Your task to perform on an android device: move a message to another label in the gmail app Image 0: 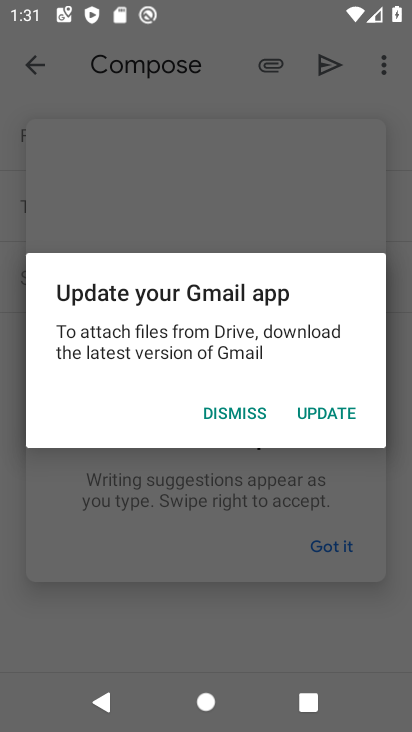
Step 0: press home button
Your task to perform on an android device: move a message to another label in the gmail app Image 1: 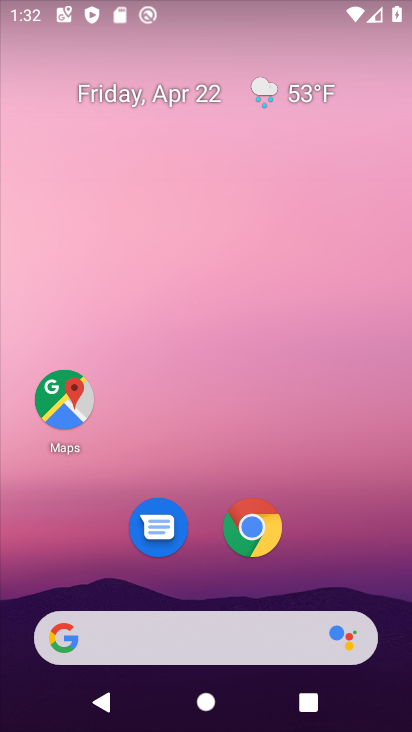
Step 1: drag from (368, 563) to (358, 362)
Your task to perform on an android device: move a message to another label in the gmail app Image 2: 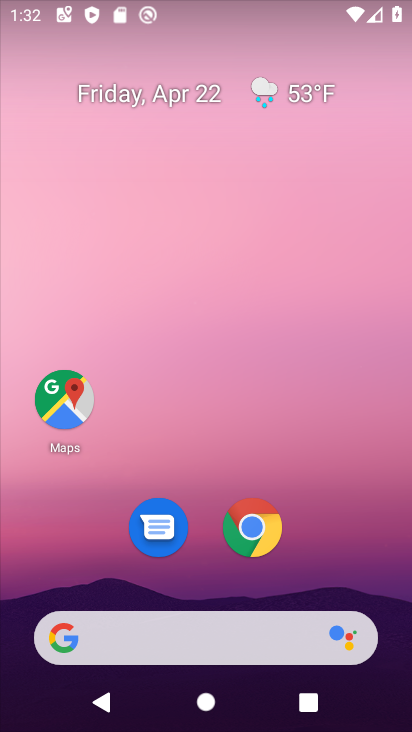
Step 2: drag from (359, 660) to (382, 154)
Your task to perform on an android device: move a message to another label in the gmail app Image 3: 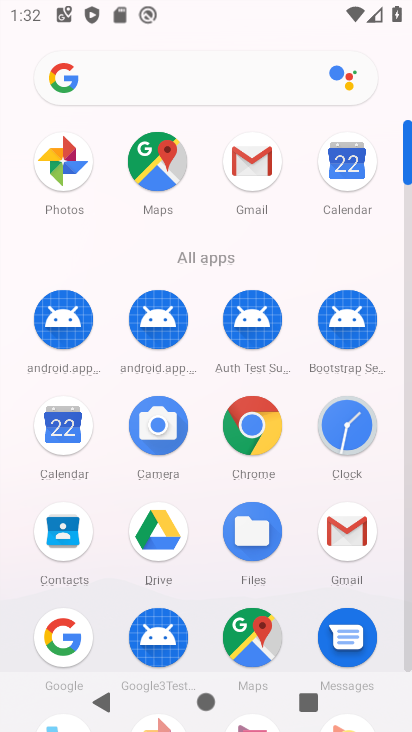
Step 3: drag from (291, 529) to (274, 195)
Your task to perform on an android device: move a message to another label in the gmail app Image 4: 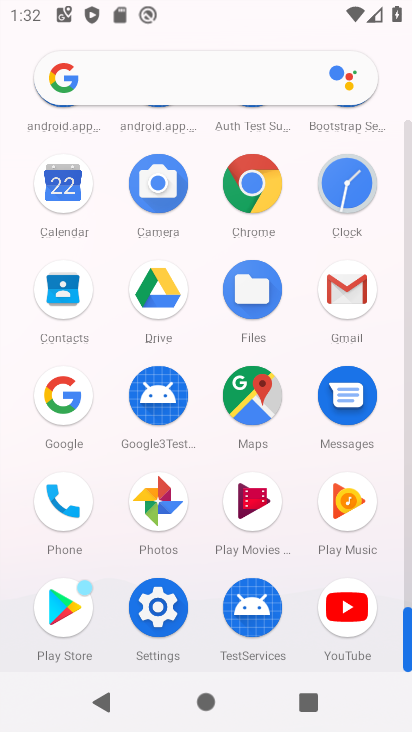
Step 4: click (344, 279)
Your task to perform on an android device: move a message to another label in the gmail app Image 5: 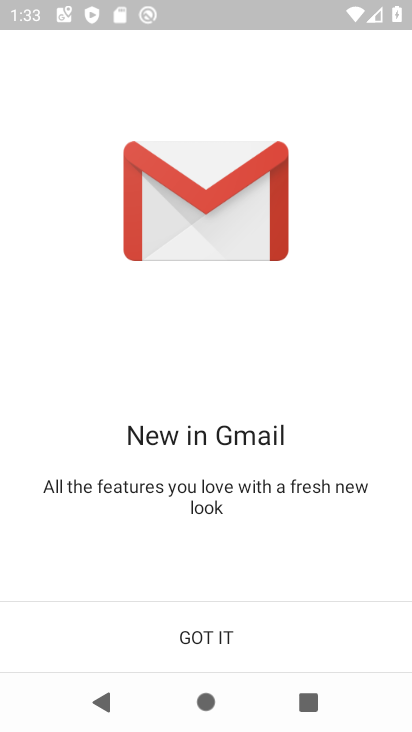
Step 5: click (252, 633)
Your task to perform on an android device: move a message to another label in the gmail app Image 6: 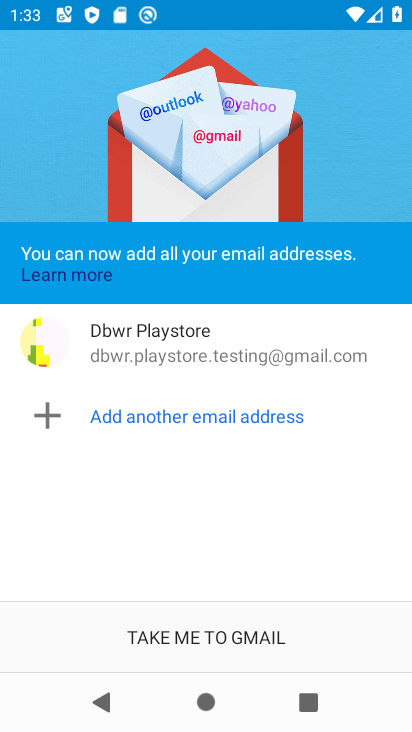
Step 6: click (218, 642)
Your task to perform on an android device: move a message to another label in the gmail app Image 7: 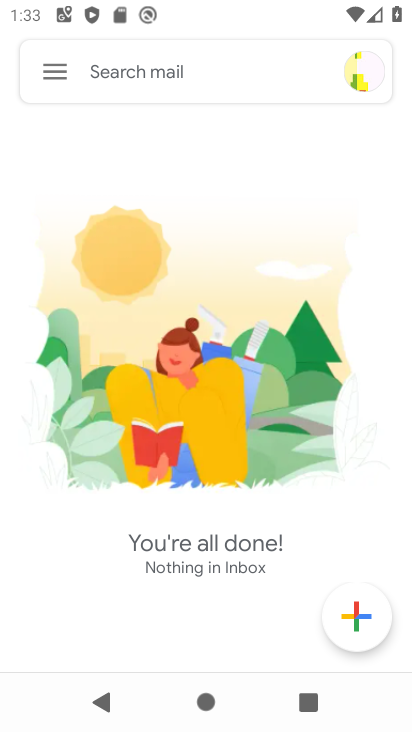
Step 7: click (66, 81)
Your task to perform on an android device: move a message to another label in the gmail app Image 8: 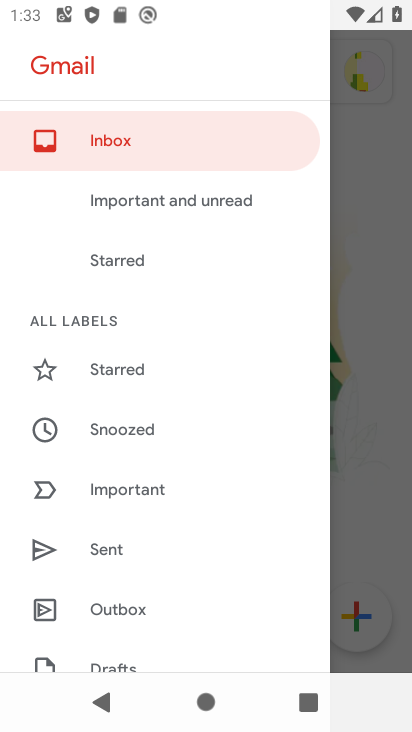
Step 8: drag from (110, 650) to (129, 159)
Your task to perform on an android device: move a message to another label in the gmail app Image 9: 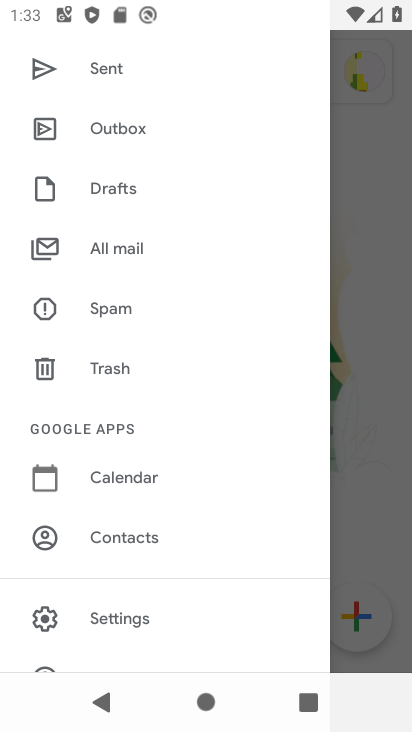
Step 9: click (134, 258)
Your task to perform on an android device: move a message to another label in the gmail app Image 10: 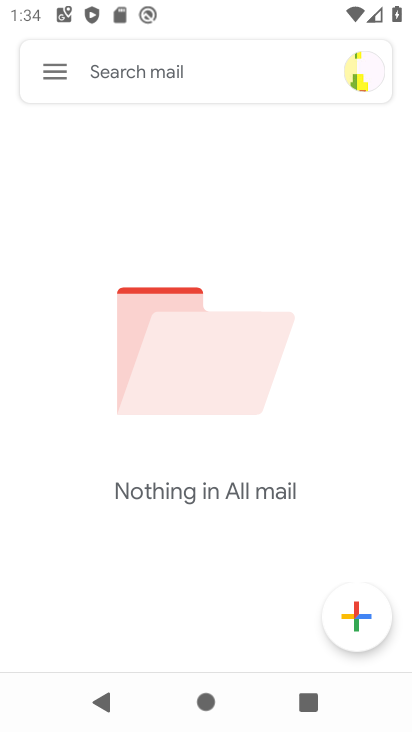
Step 10: task complete